Your task to perform on an android device: turn off improve location accuracy Image 0: 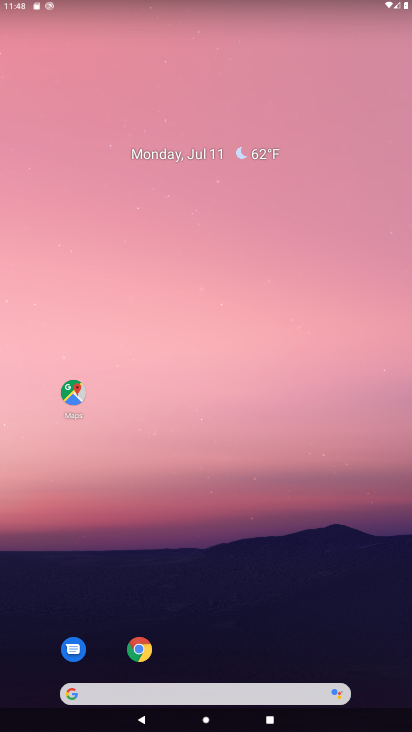
Step 0: drag from (219, 609) to (161, 100)
Your task to perform on an android device: turn off improve location accuracy Image 1: 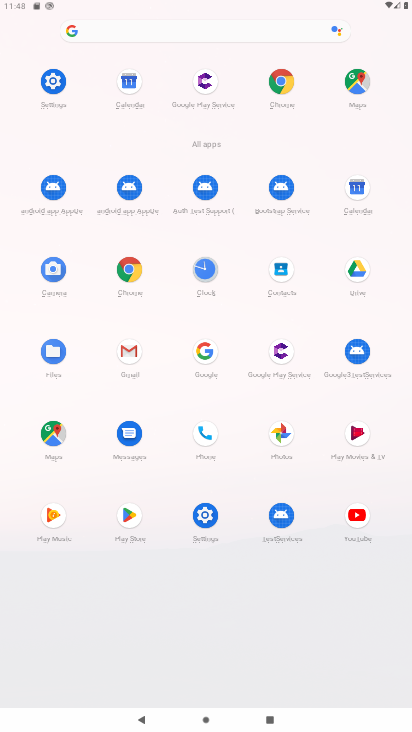
Step 1: click (52, 80)
Your task to perform on an android device: turn off improve location accuracy Image 2: 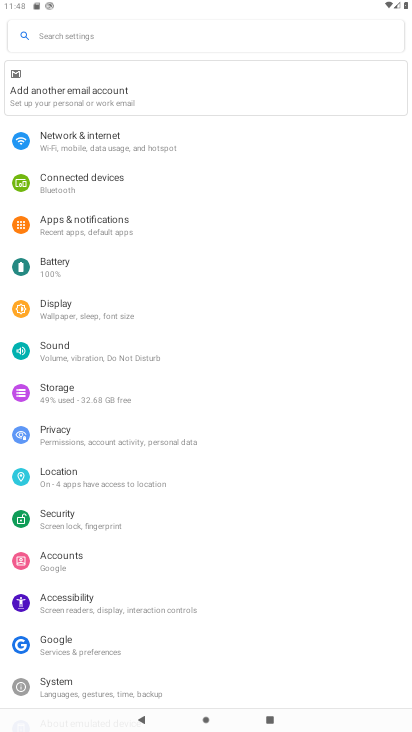
Step 2: click (58, 473)
Your task to perform on an android device: turn off improve location accuracy Image 3: 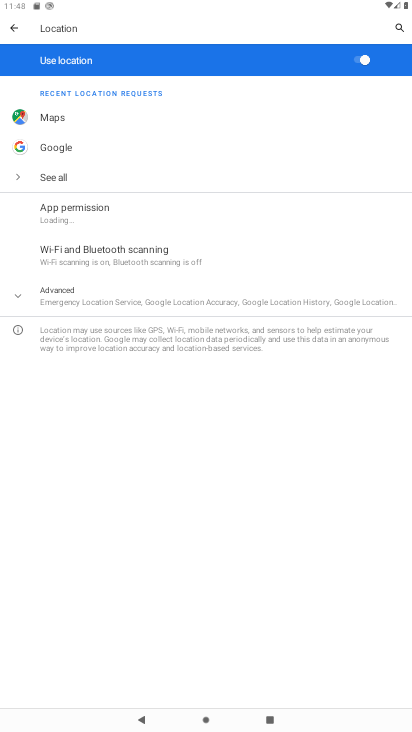
Step 3: click (23, 295)
Your task to perform on an android device: turn off improve location accuracy Image 4: 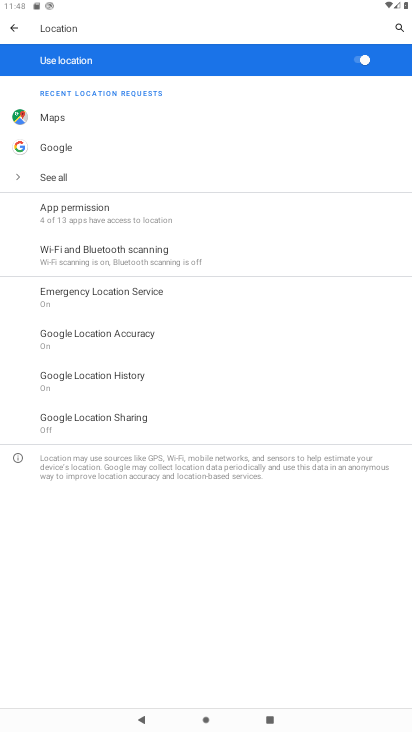
Step 4: click (90, 333)
Your task to perform on an android device: turn off improve location accuracy Image 5: 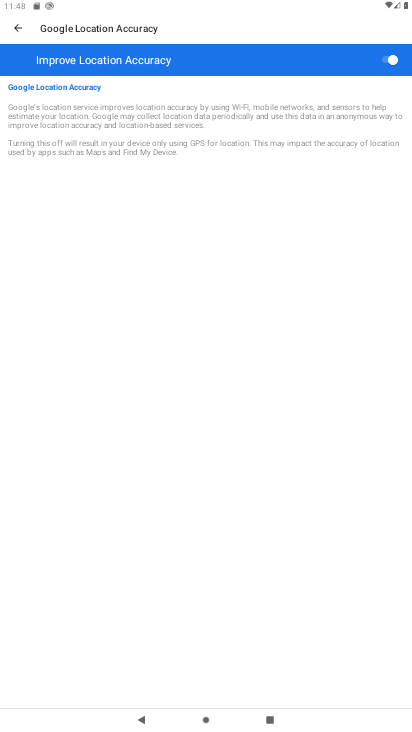
Step 5: click (392, 56)
Your task to perform on an android device: turn off improve location accuracy Image 6: 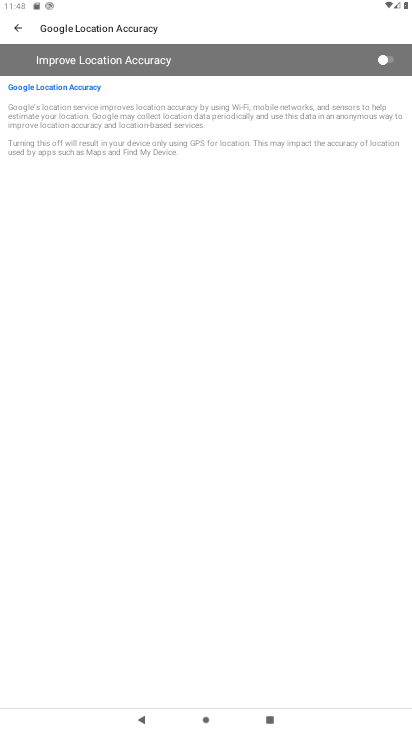
Step 6: task complete